Your task to perform on an android device: Turn on the flashlight Image 0: 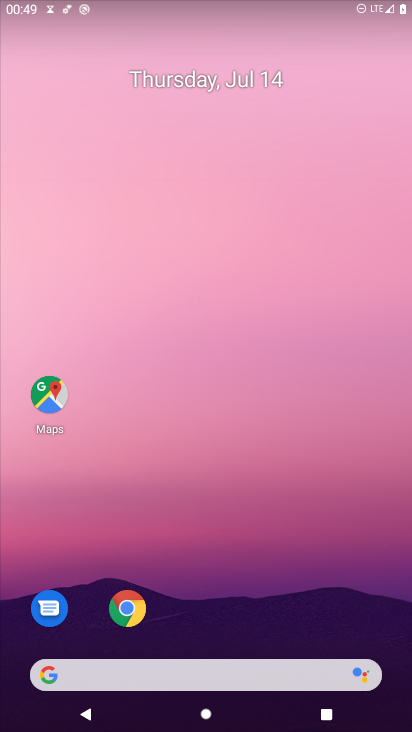
Step 0: drag from (248, 5) to (294, 474)
Your task to perform on an android device: Turn on the flashlight Image 1: 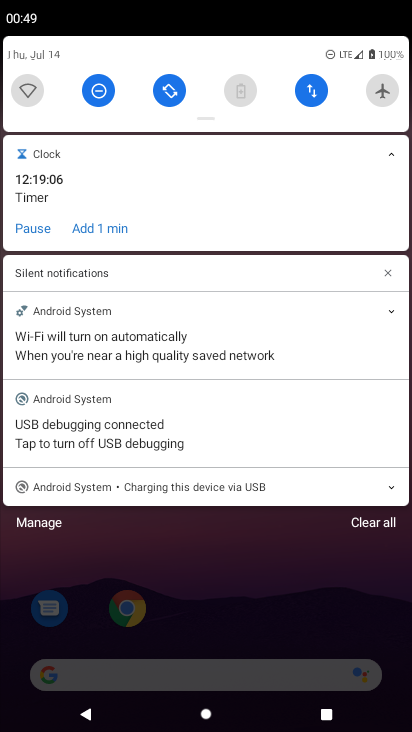
Step 1: click (374, 90)
Your task to perform on an android device: Turn on the flashlight Image 2: 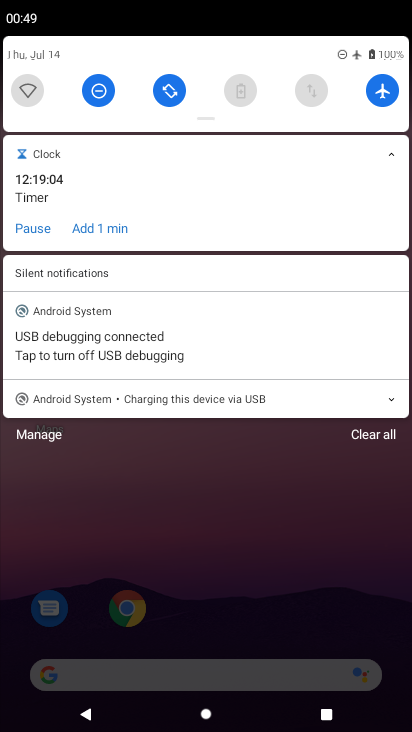
Step 2: task complete